Your task to perform on an android device: see sites visited before in the chrome app Image 0: 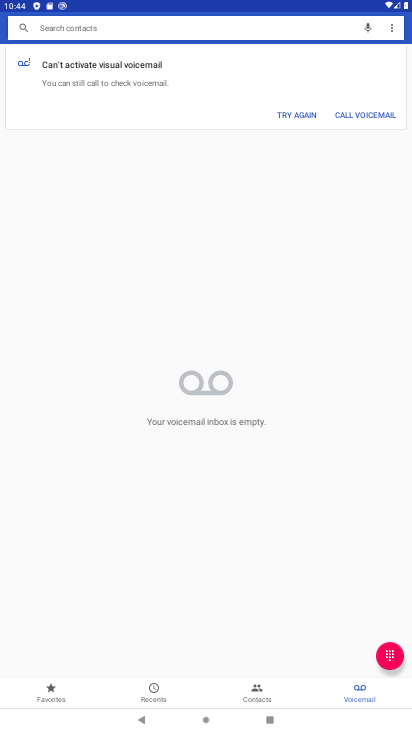
Step 0: press home button
Your task to perform on an android device: see sites visited before in the chrome app Image 1: 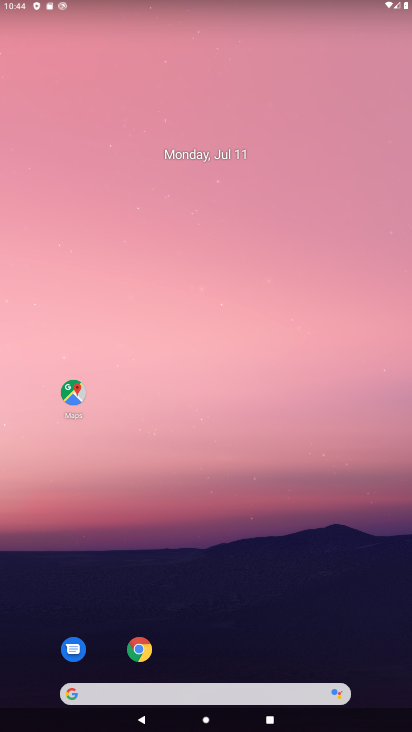
Step 1: click (139, 648)
Your task to perform on an android device: see sites visited before in the chrome app Image 2: 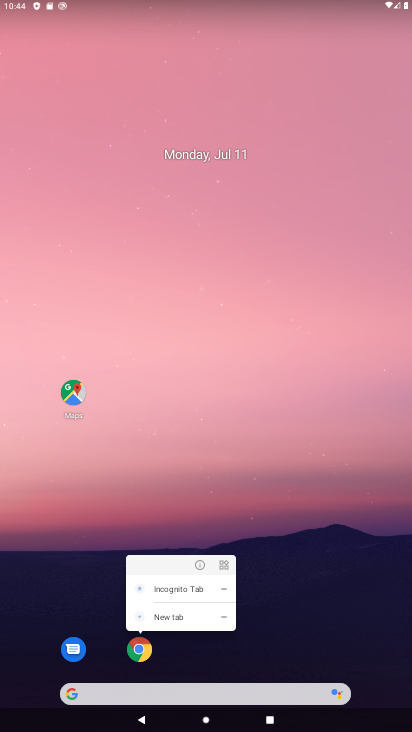
Step 2: click (139, 648)
Your task to perform on an android device: see sites visited before in the chrome app Image 3: 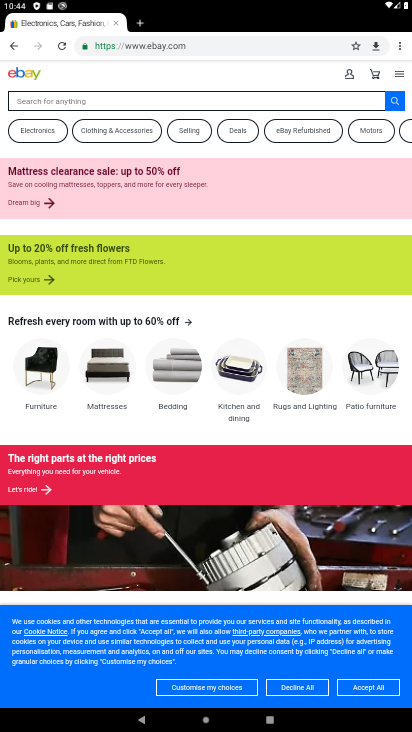
Step 3: click (401, 43)
Your task to perform on an android device: see sites visited before in the chrome app Image 4: 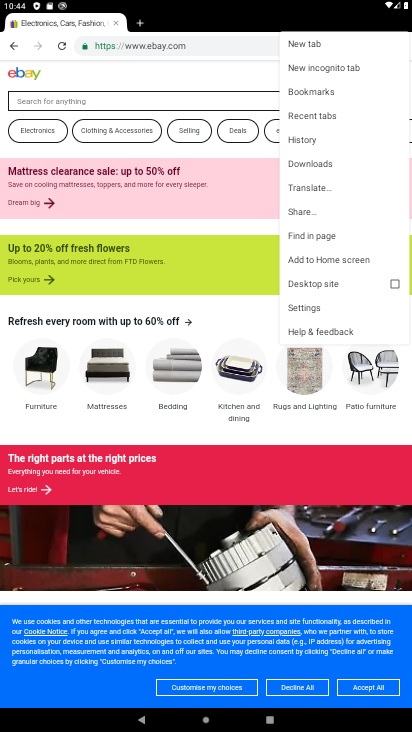
Step 4: click (307, 138)
Your task to perform on an android device: see sites visited before in the chrome app Image 5: 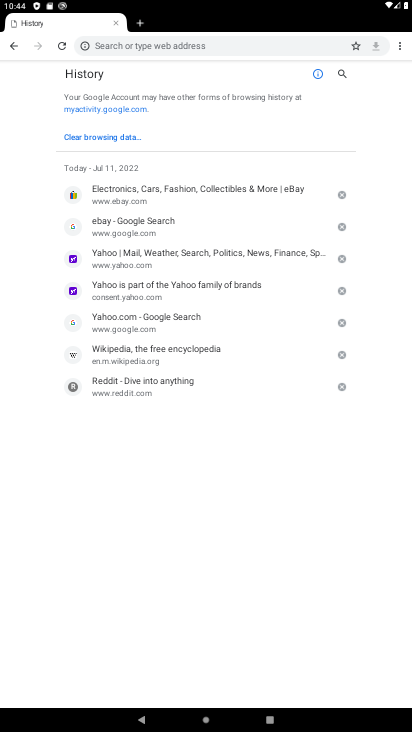
Step 5: task complete